Your task to perform on an android device: empty trash in google photos Image 0: 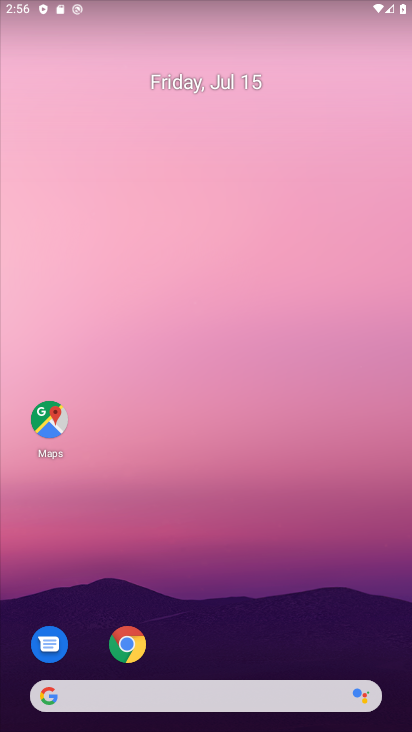
Step 0: drag from (228, 700) to (232, 151)
Your task to perform on an android device: empty trash in google photos Image 1: 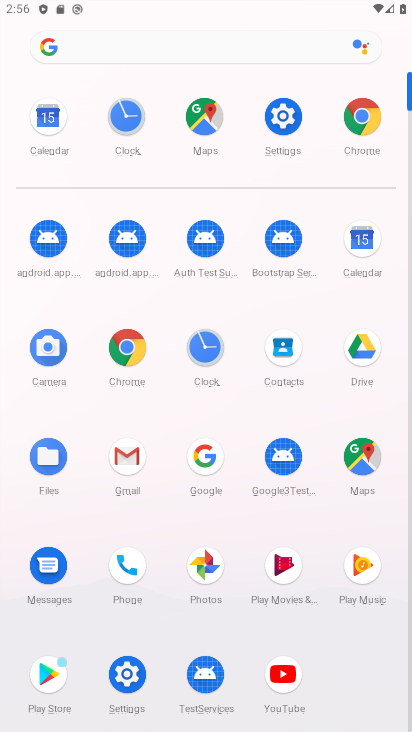
Step 1: click (203, 571)
Your task to perform on an android device: empty trash in google photos Image 2: 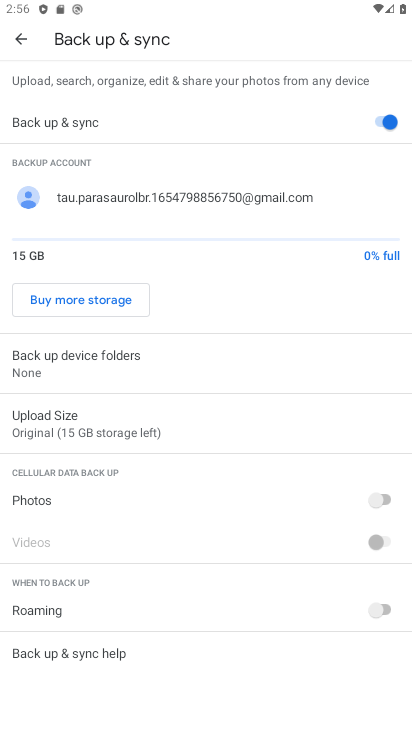
Step 2: press back button
Your task to perform on an android device: empty trash in google photos Image 3: 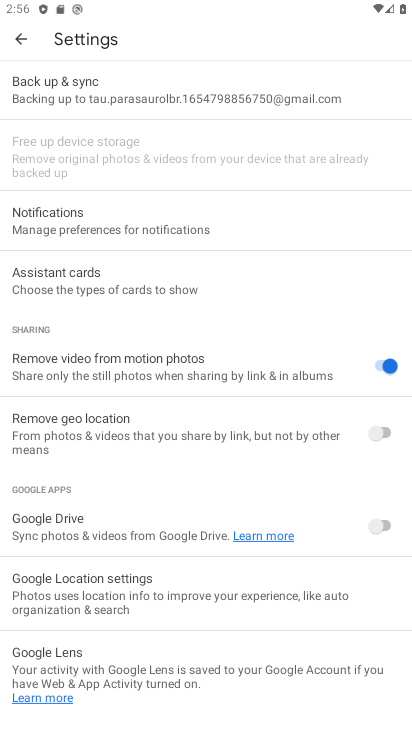
Step 3: press back button
Your task to perform on an android device: empty trash in google photos Image 4: 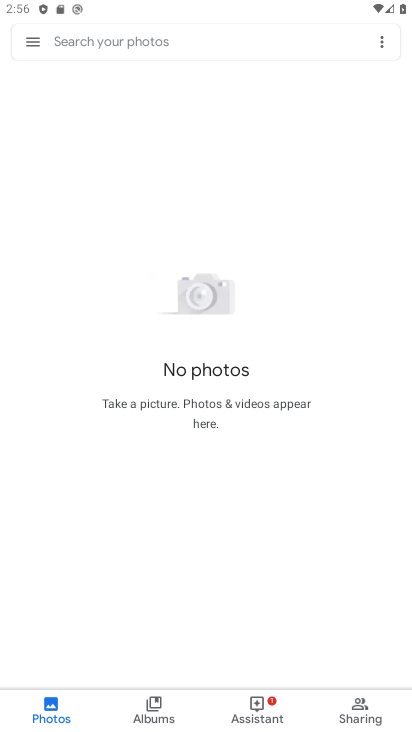
Step 4: click (33, 35)
Your task to perform on an android device: empty trash in google photos Image 5: 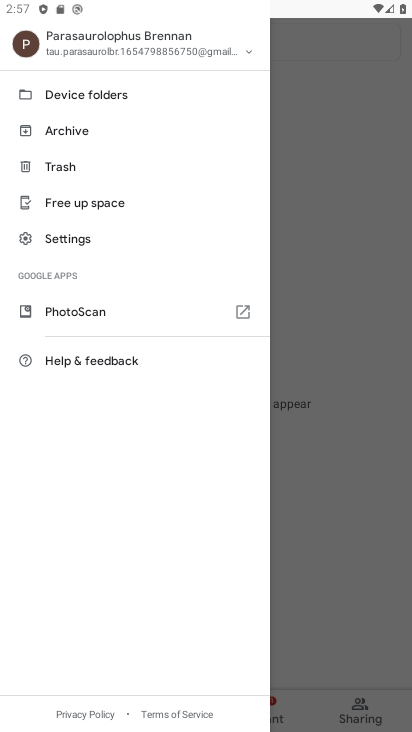
Step 5: click (99, 169)
Your task to perform on an android device: empty trash in google photos Image 6: 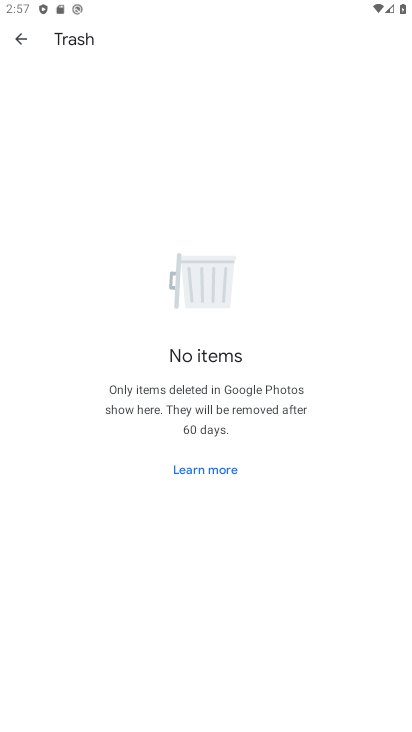
Step 6: task complete